Your task to perform on an android device: turn pop-ups on in chrome Image 0: 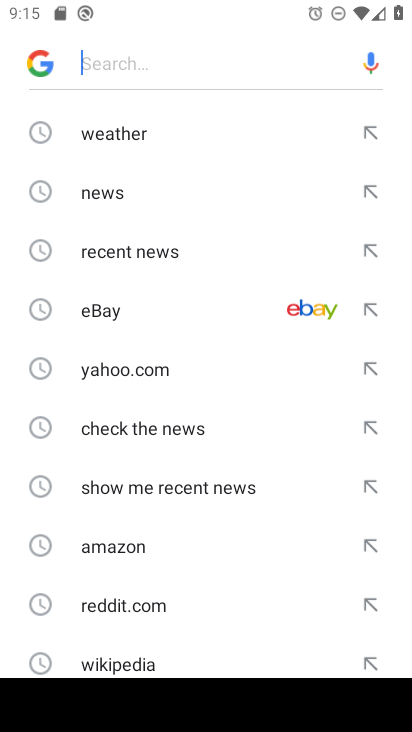
Step 0: press home button
Your task to perform on an android device: turn pop-ups on in chrome Image 1: 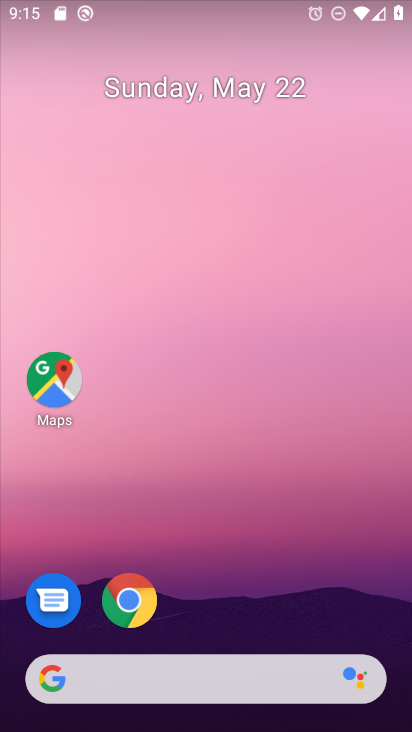
Step 1: drag from (184, 661) to (290, 15)
Your task to perform on an android device: turn pop-ups on in chrome Image 2: 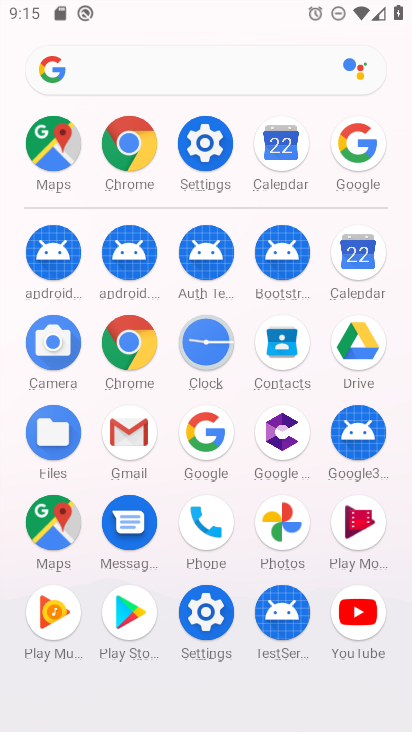
Step 2: click (136, 156)
Your task to perform on an android device: turn pop-ups on in chrome Image 3: 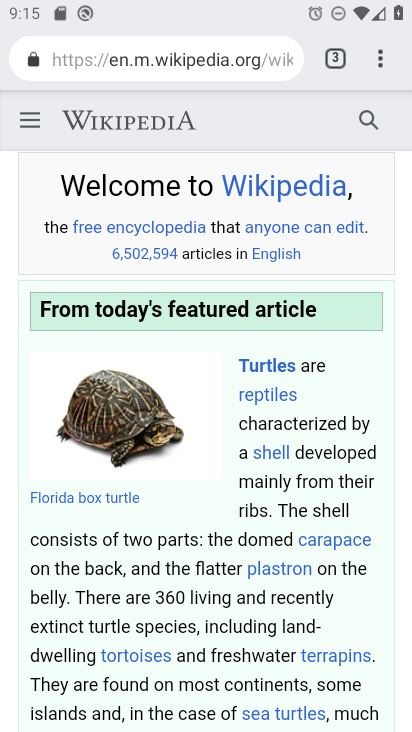
Step 3: click (389, 56)
Your task to perform on an android device: turn pop-ups on in chrome Image 4: 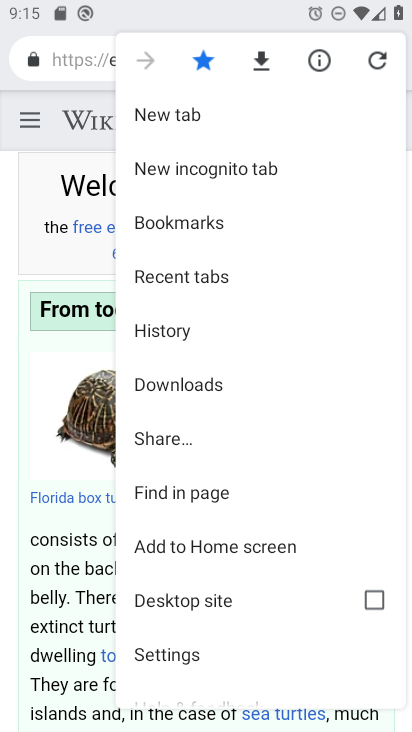
Step 4: click (183, 645)
Your task to perform on an android device: turn pop-ups on in chrome Image 5: 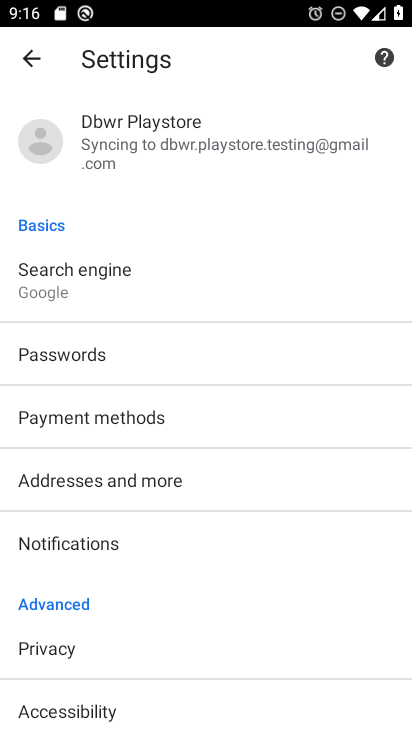
Step 5: drag from (182, 644) to (241, 204)
Your task to perform on an android device: turn pop-ups on in chrome Image 6: 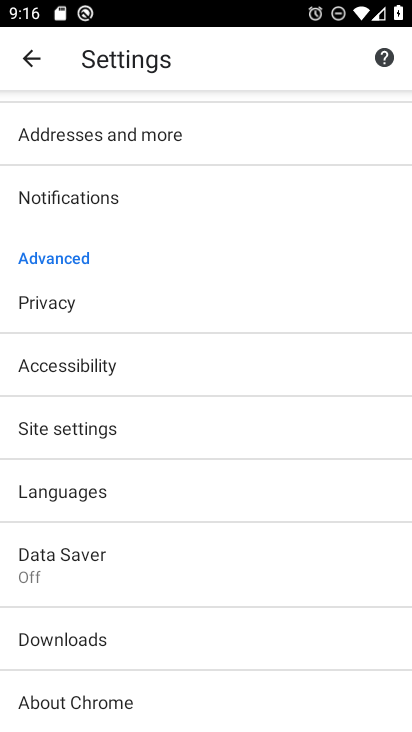
Step 6: drag from (109, 587) to (158, 356)
Your task to perform on an android device: turn pop-ups on in chrome Image 7: 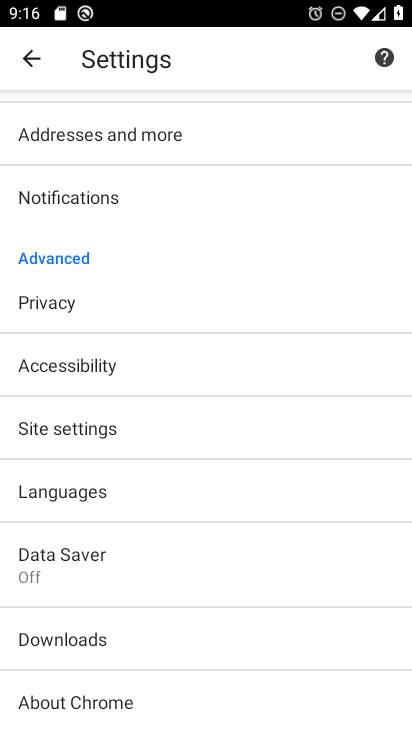
Step 7: click (72, 427)
Your task to perform on an android device: turn pop-ups on in chrome Image 8: 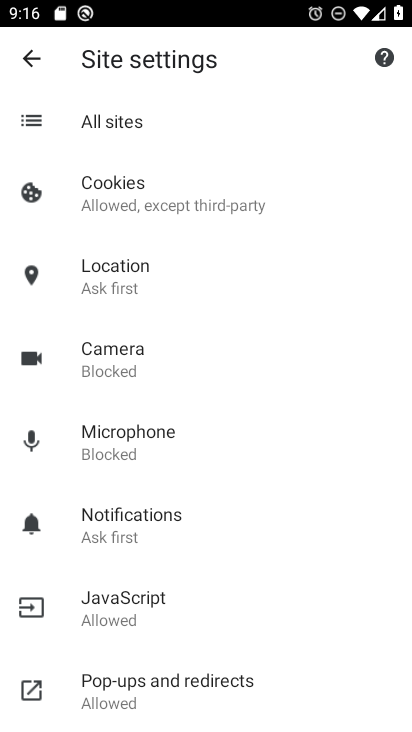
Step 8: click (159, 682)
Your task to perform on an android device: turn pop-ups on in chrome Image 9: 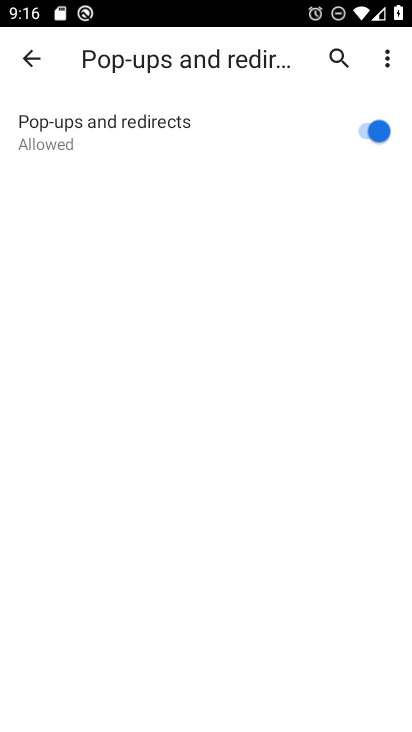
Step 9: task complete